Your task to perform on an android device: Go to battery settings Image 0: 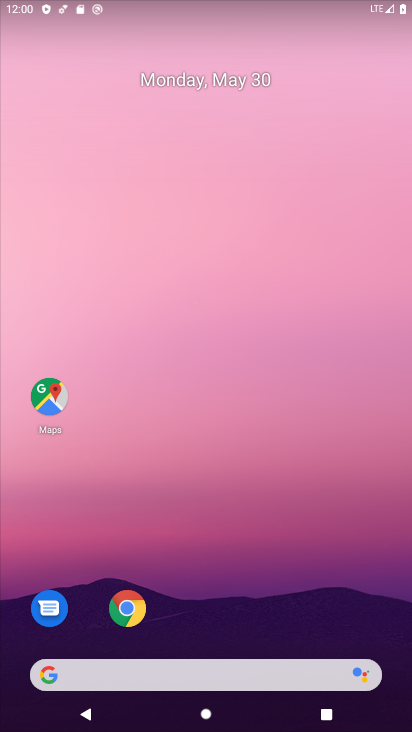
Step 0: drag from (249, 629) to (275, 167)
Your task to perform on an android device: Go to battery settings Image 1: 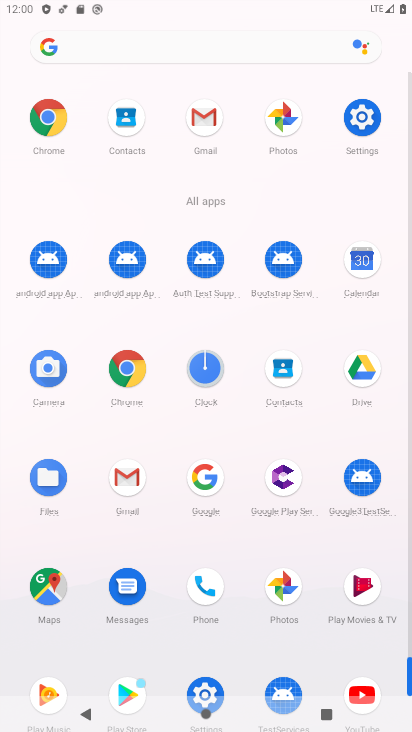
Step 1: click (364, 146)
Your task to perform on an android device: Go to battery settings Image 2: 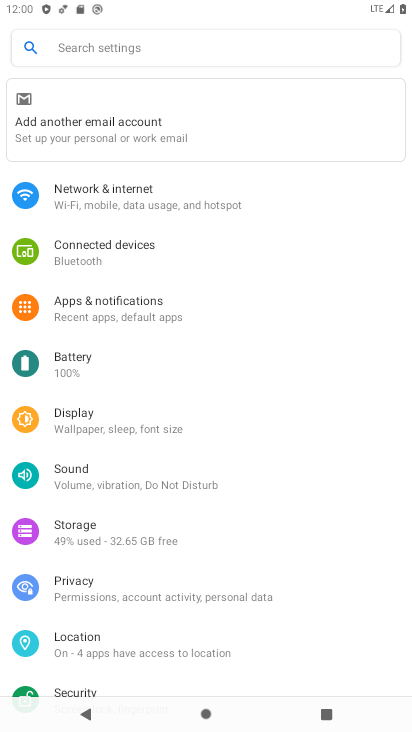
Step 2: click (95, 382)
Your task to perform on an android device: Go to battery settings Image 3: 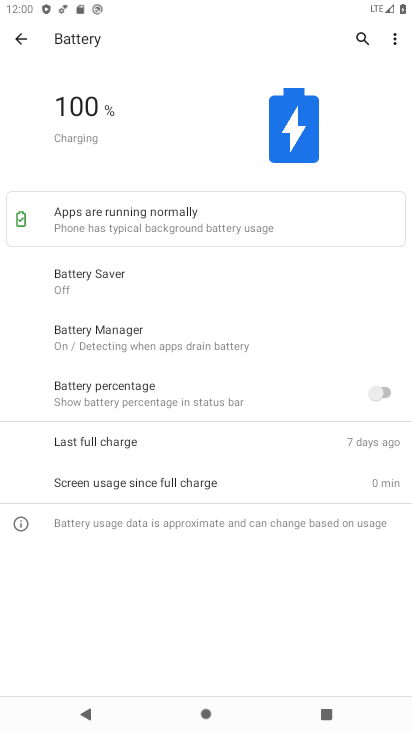
Step 3: task complete